Your task to perform on an android device: Search for "razer huntsman" on amazon.com, select the first entry, and add it to the cart. Image 0: 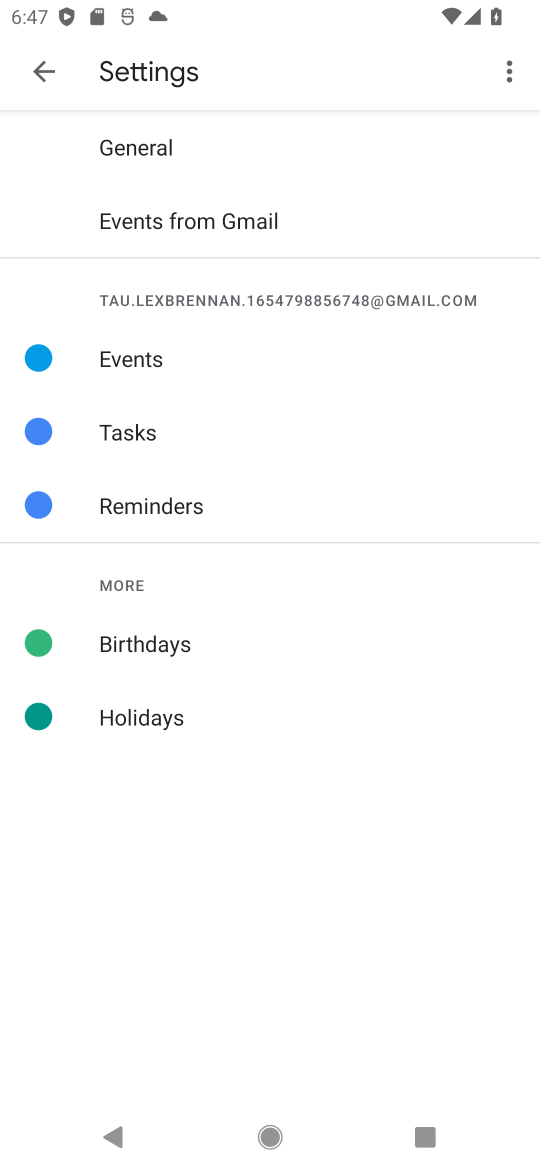
Step 0: press home button
Your task to perform on an android device: Search for "razer huntsman" on amazon.com, select the first entry, and add it to the cart. Image 1: 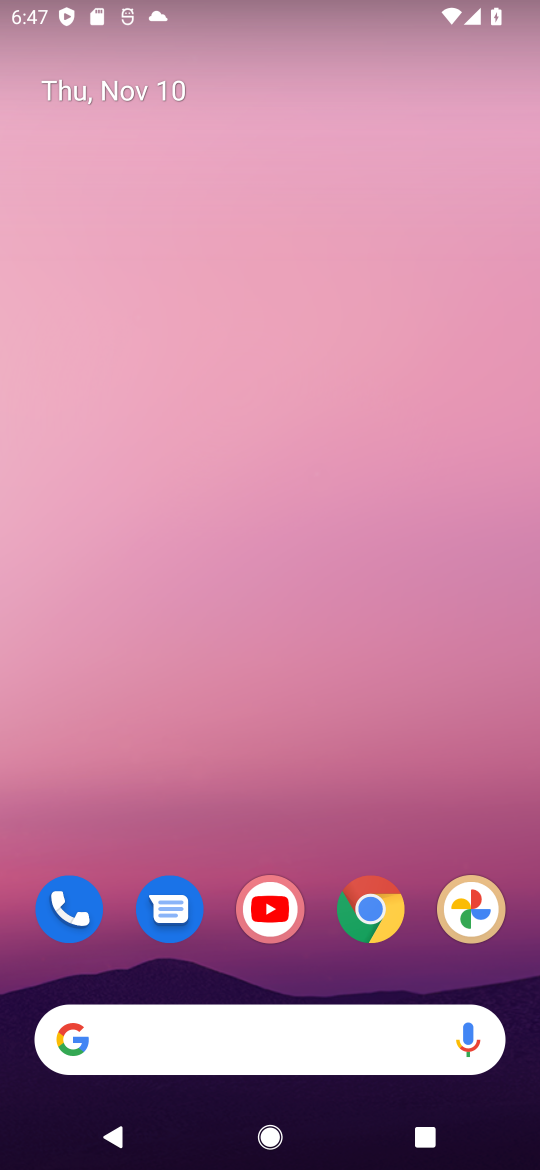
Step 1: drag from (275, 845) to (255, 352)
Your task to perform on an android device: Search for "razer huntsman" on amazon.com, select the first entry, and add it to the cart. Image 2: 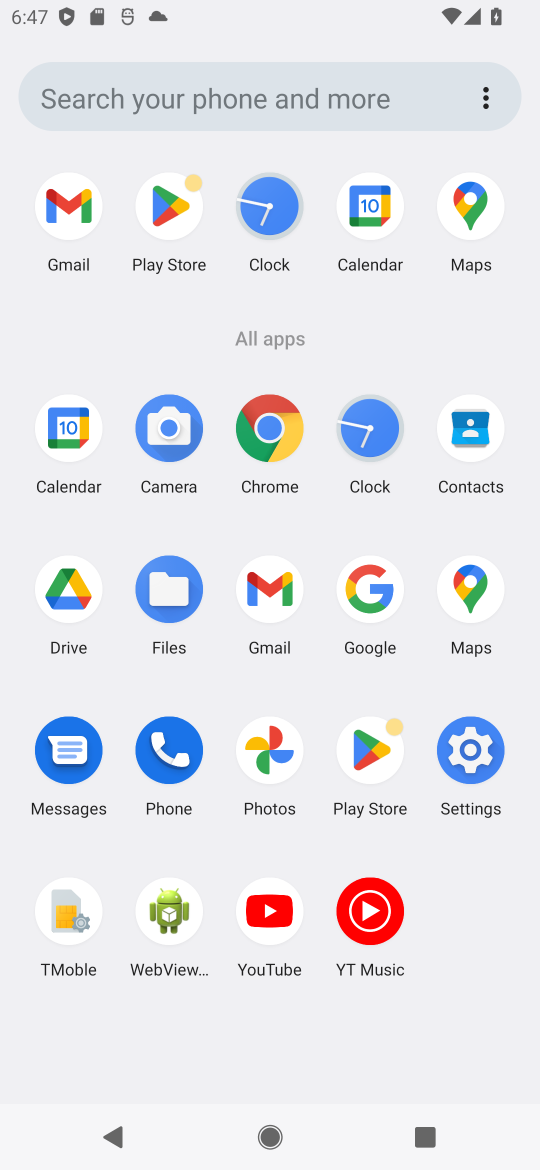
Step 2: click (381, 586)
Your task to perform on an android device: Search for "razer huntsman" on amazon.com, select the first entry, and add it to the cart. Image 3: 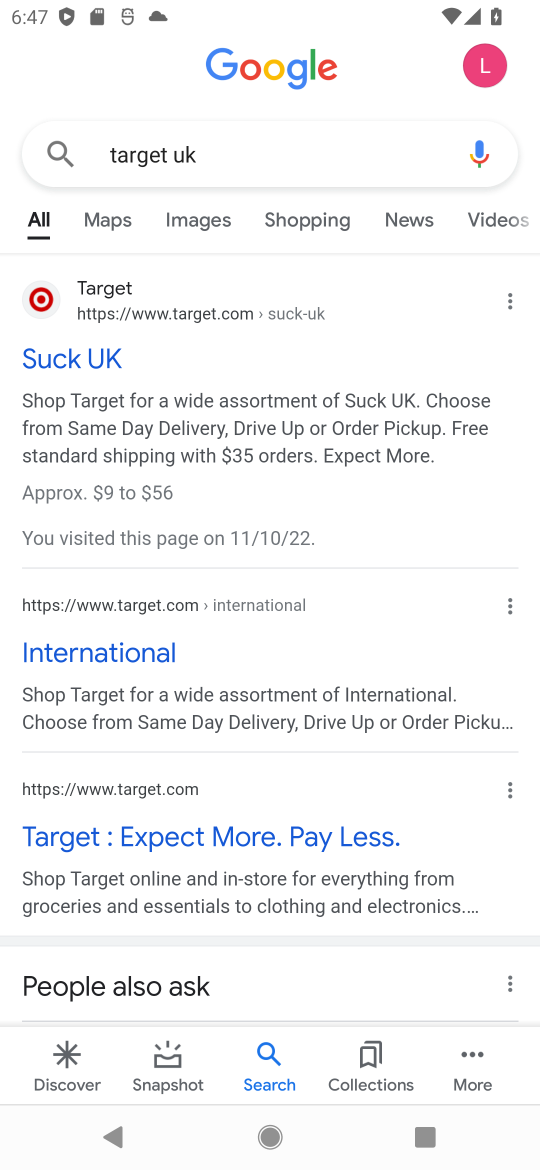
Step 3: click (208, 132)
Your task to perform on an android device: Search for "razer huntsman" on amazon.com, select the first entry, and add it to the cart. Image 4: 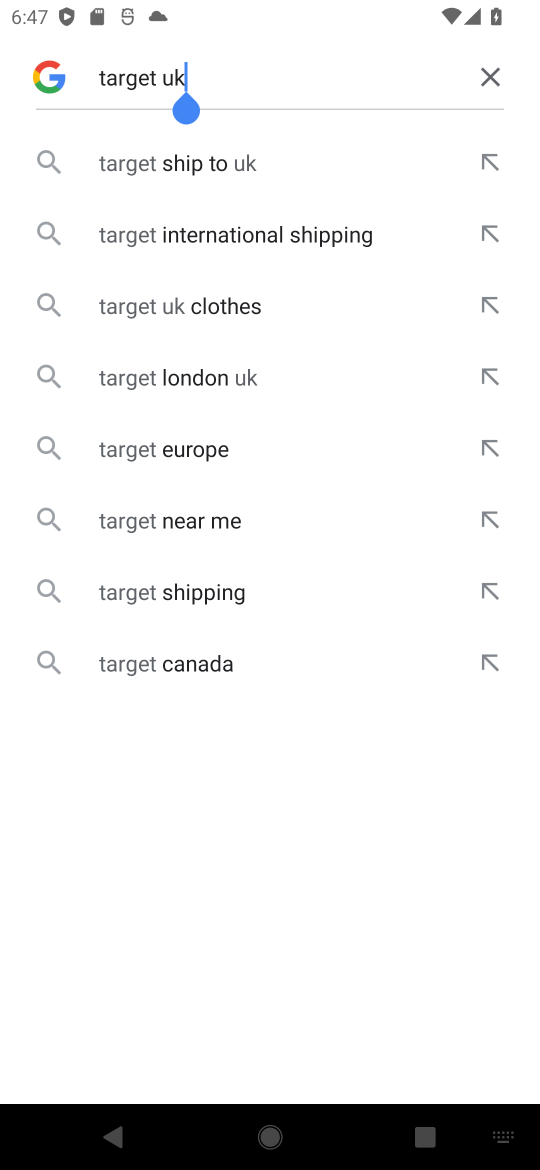
Step 4: click (488, 73)
Your task to perform on an android device: Search for "razer huntsman" on amazon.com, select the first entry, and add it to the cart. Image 5: 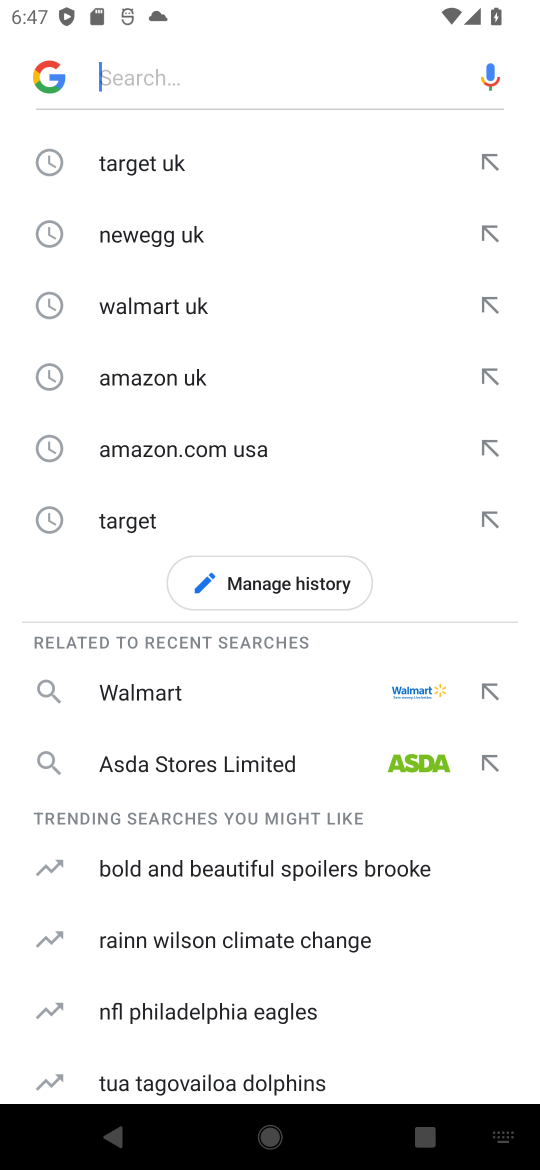
Step 5: click (176, 50)
Your task to perform on an android device: Search for "razer huntsman" on amazon.com, select the first entry, and add it to the cart. Image 6: 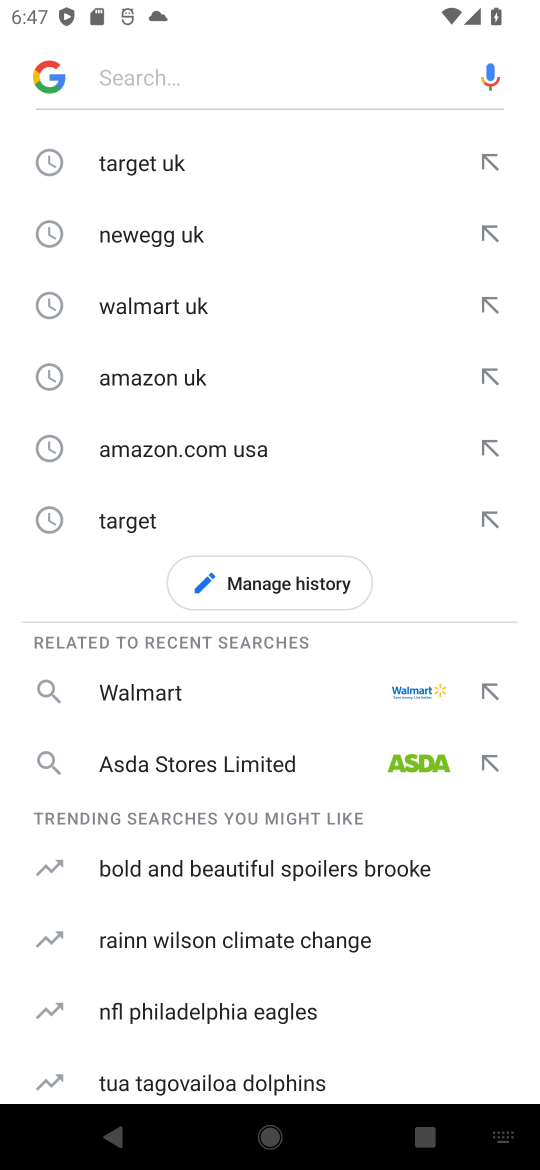
Step 6: type "amazon "
Your task to perform on an android device: Search for "razer huntsman" on amazon.com, select the first entry, and add it to the cart. Image 7: 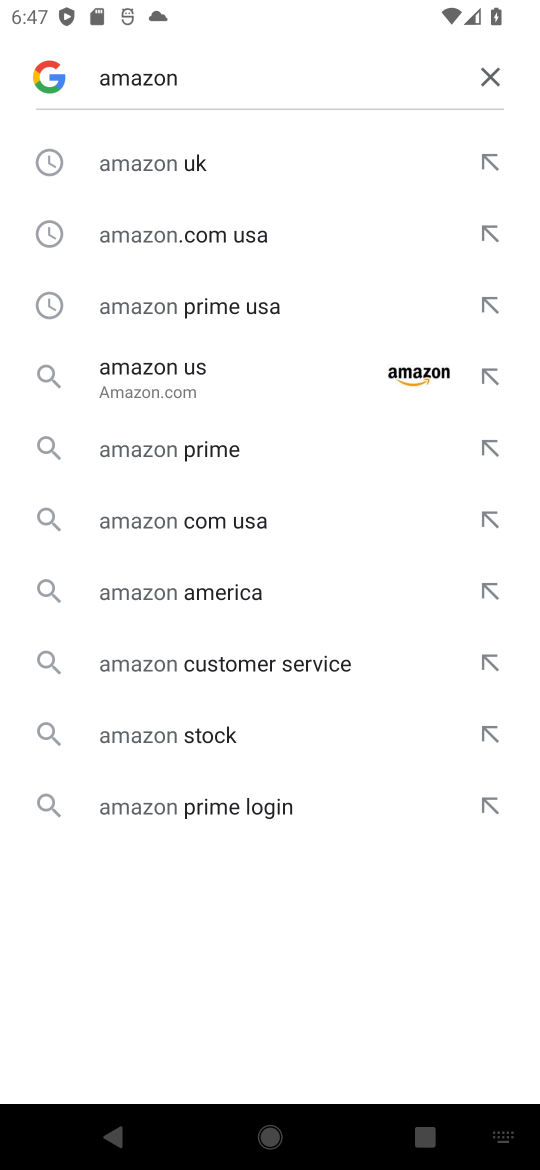
Step 7: click (185, 154)
Your task to perform on an android device: Search for "razer huntsman" on amazon.com, select the first entry, and add it to the cart. Image 8: 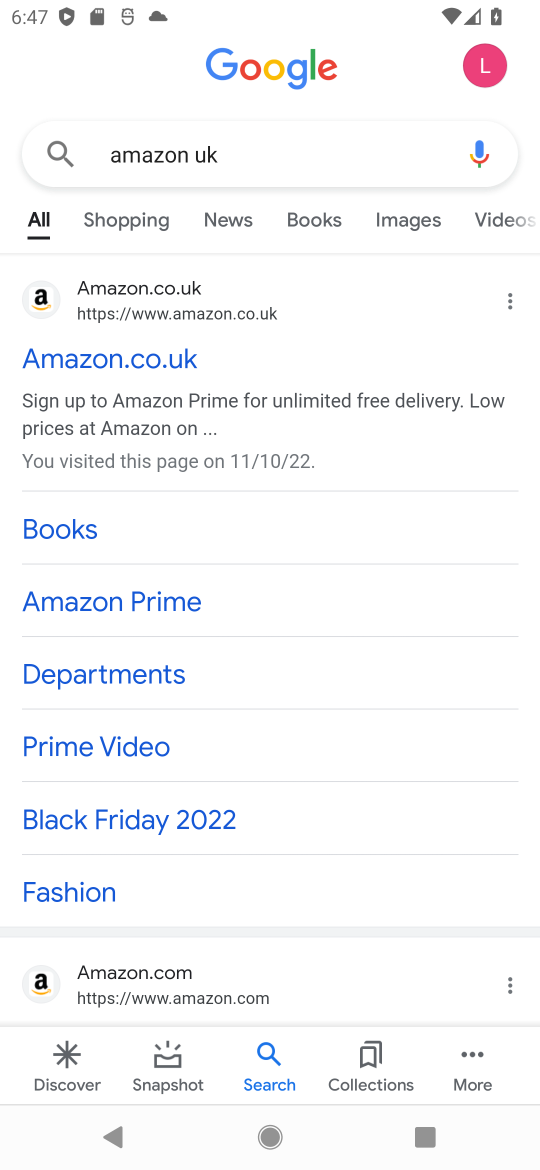
Step 8: click (38, 289)
Your task to perform on an android device: Search for "razer huntsman" on amazon.com, select the first entry, and add it to the cart. Image 9: 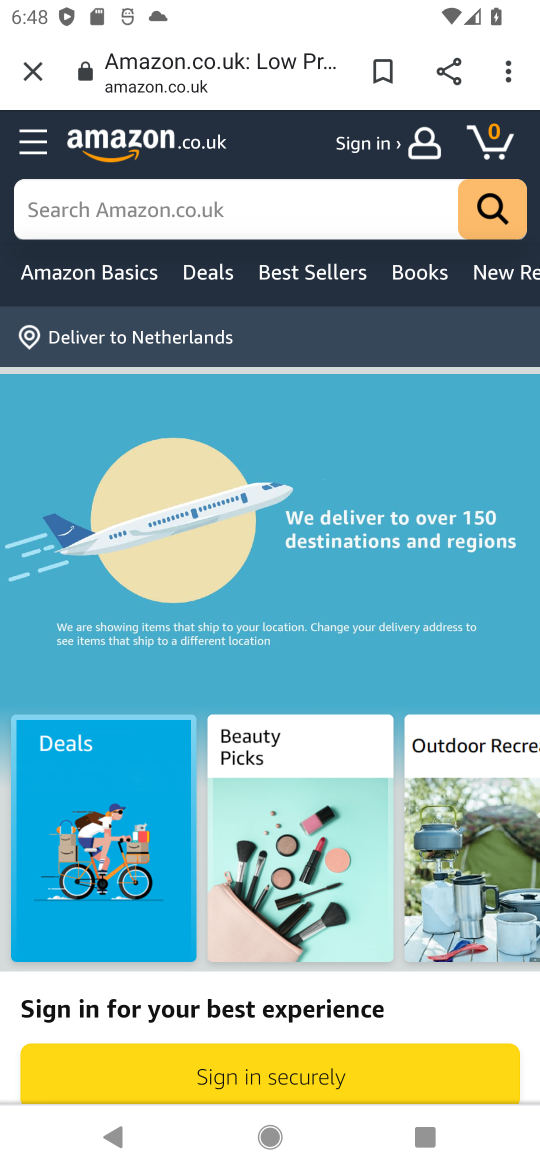
Step 9: click (324, 198)
Your task to perform on an android device: Search for "razer huntsman" on amazon.com, select the first entry, and add it to the cart. Image 10: 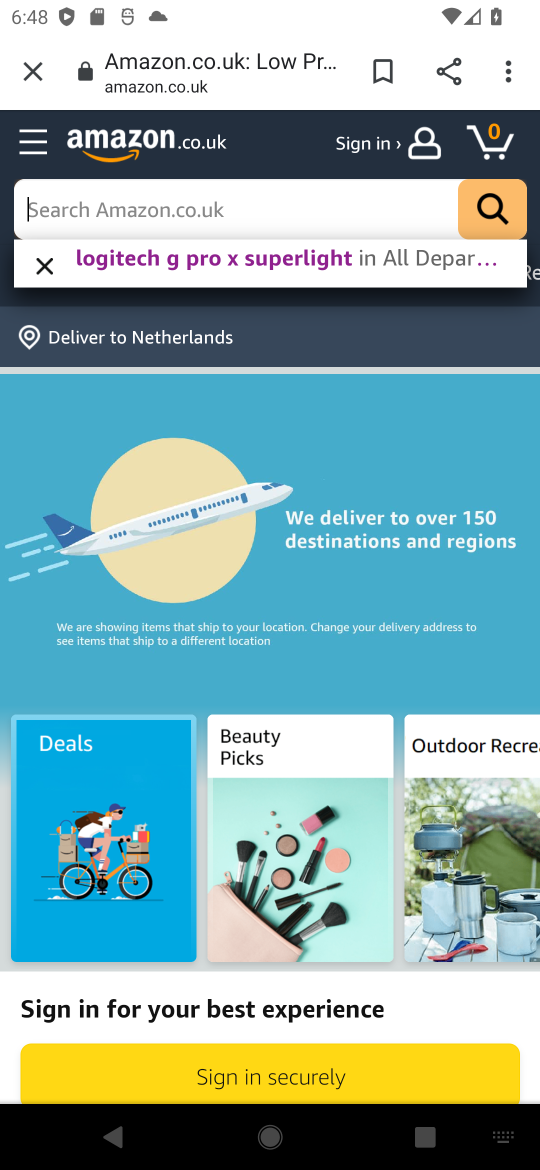
Step 10: type "razer huntsman "
Your task to perform on an android device: Search for "razer huntsman" on amazon.com, select the first entry, and add it to the cart. Image 11: 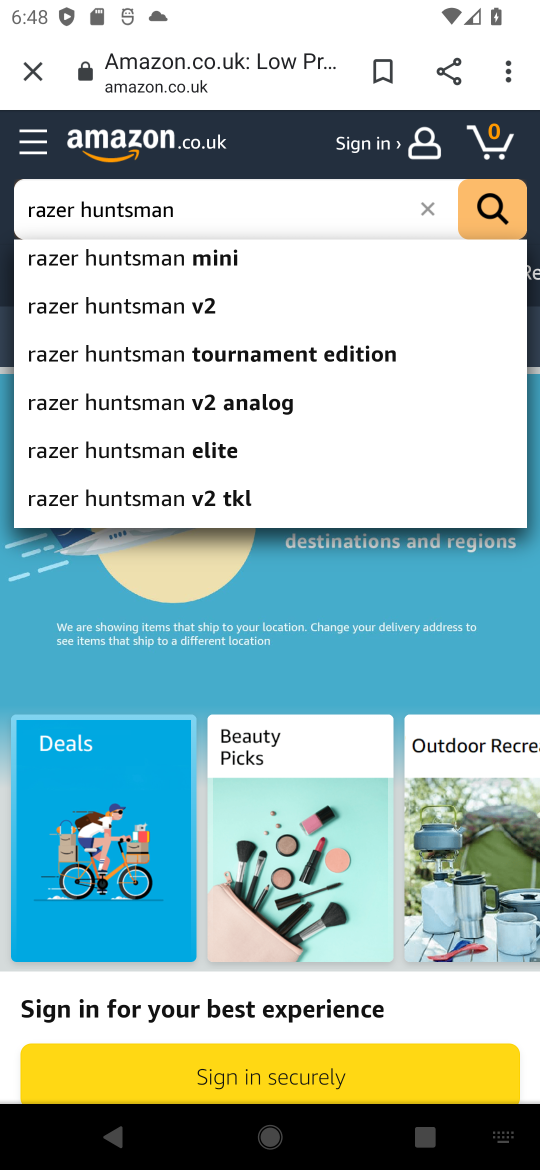
Step 11: click (130, 308)
Your task to perform on an android device: Search for "razer huntsman" on amazon.com, select the first entry, and add it to the cart. Image 12: 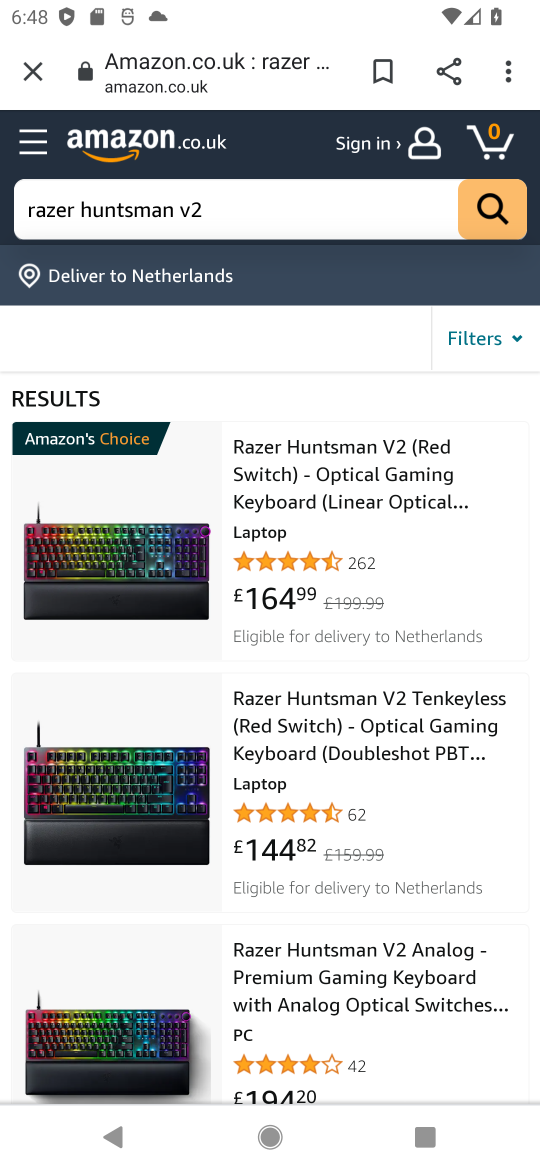
Step 12: click (306, 488)
Your task to perform on an android device: Search for "razer huntsman" on amazon.com, select the first entry, and add it to the cart. Image 13: 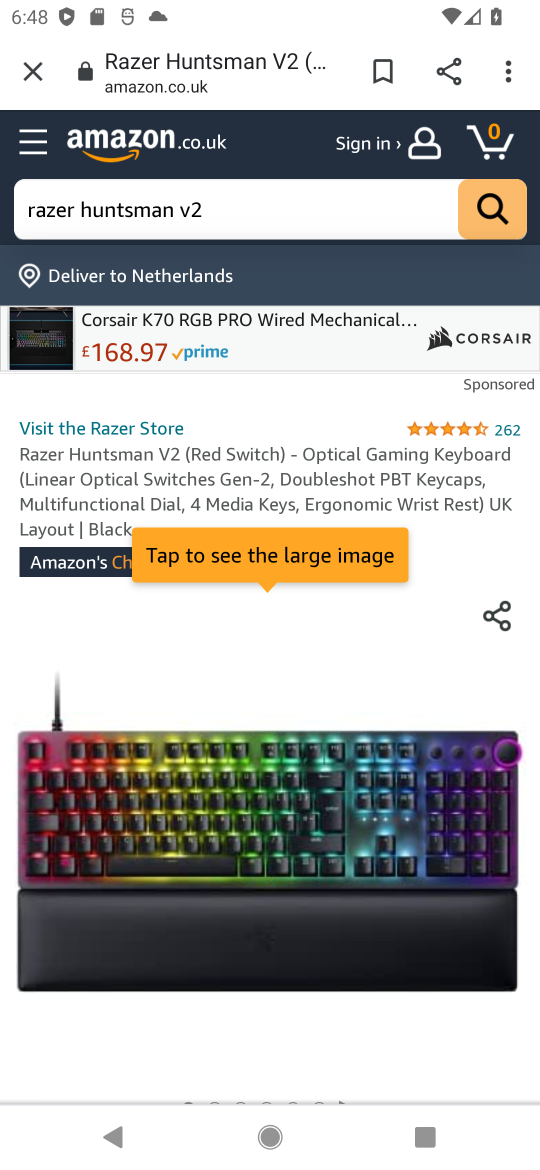
Step 13: drag from (262, 813) to (291, 254)
Your task to perform on an android device: Search for "razer huntsman" on amazon.com, select the first entry, and add it to the cart. Image 14: 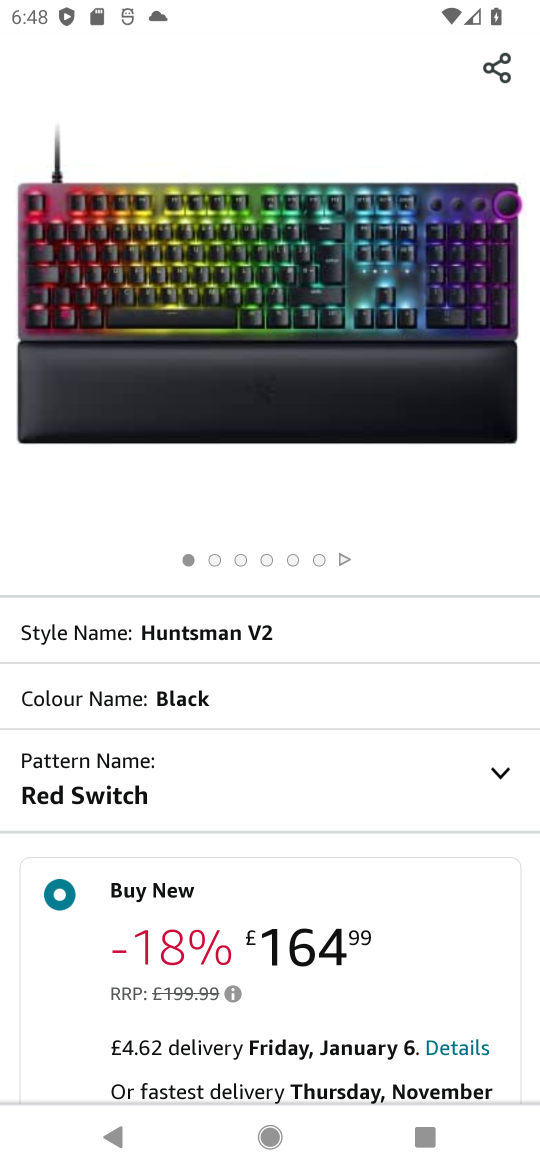
Step 14: drag from (246, 822) to (298, 310)
Your task to perform on an android device: Search for "razer huntsman" on amazon.com, select the first entry, and add it to the cart. Image 15: 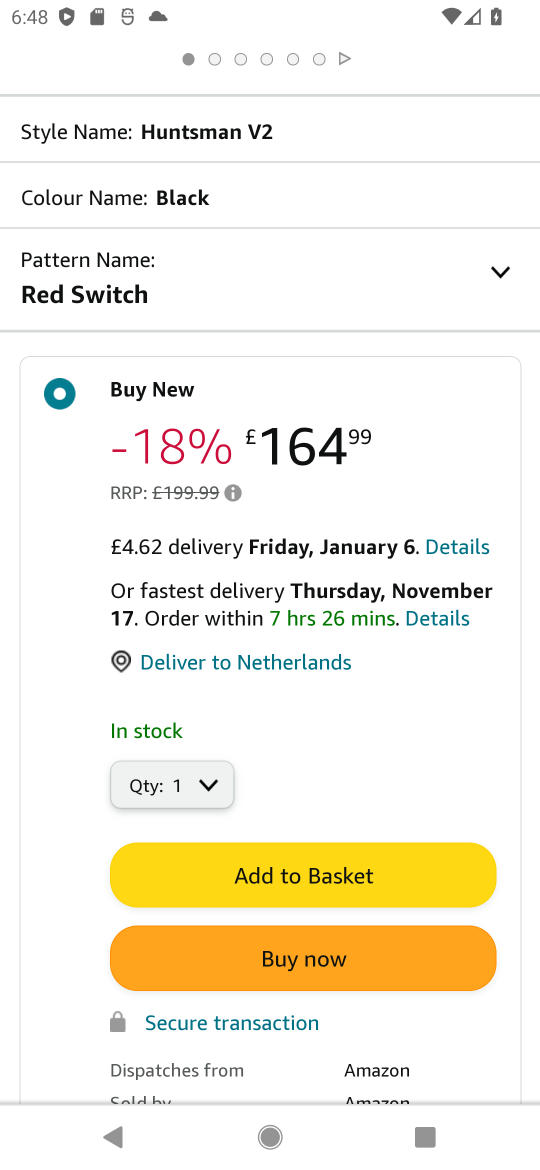
Step 15: click (321, 872)
Your task to perform on an android device: Search for "razer huntsman" on amazon.com, select the first entry, and add it to the cart. Image 16: 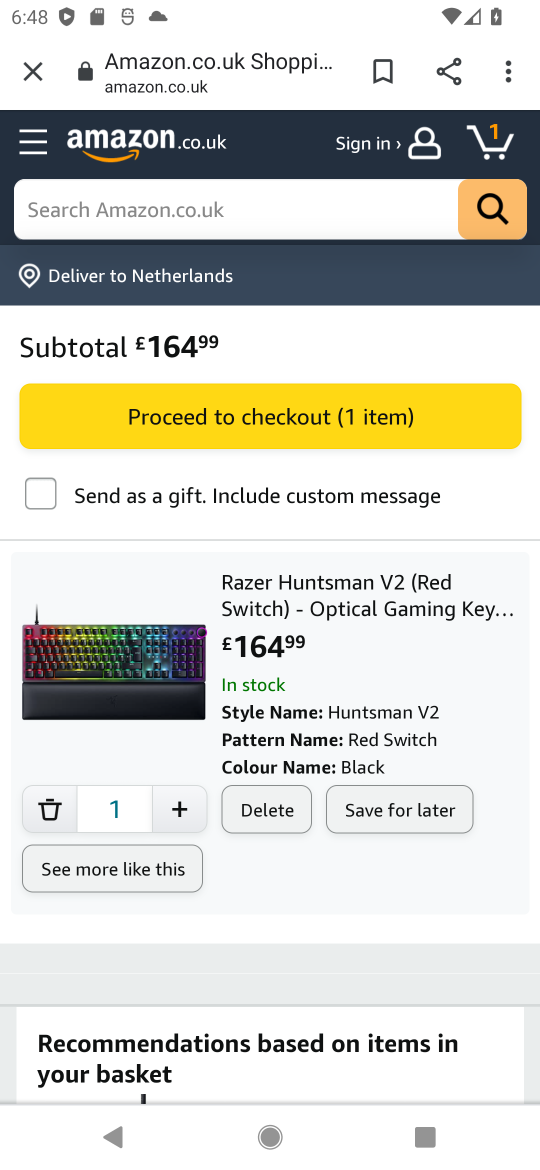
Step 16: task complete